Your task to perform on an android device: change the clock display to analog Image 0: 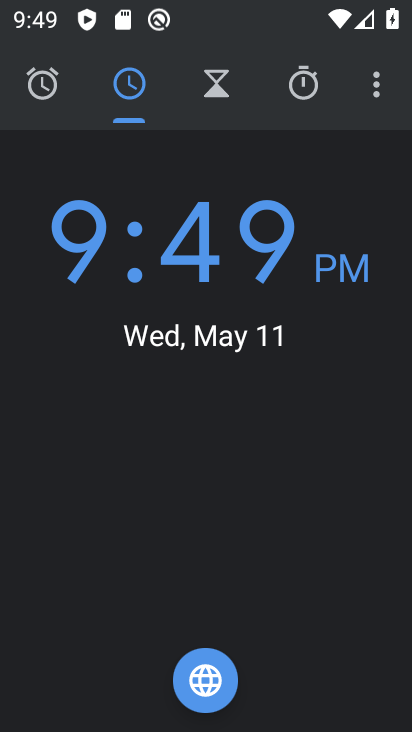
Step 0: click (390, 85)
Your task to perform on an android device: change the clock display to analog Image 1: 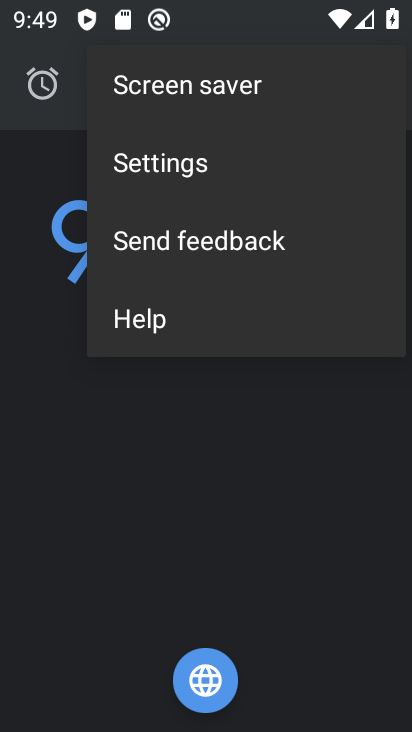
Step 1: click (170, 153)
Your task to perform on an android device: change the clock display to analog Image 2: 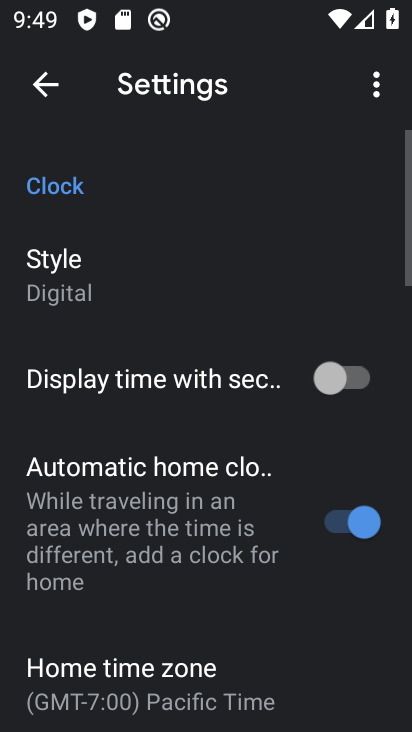
Step 2: click (133, 244)
Your task to perform on an android device: change the clock display to analog Image 3: 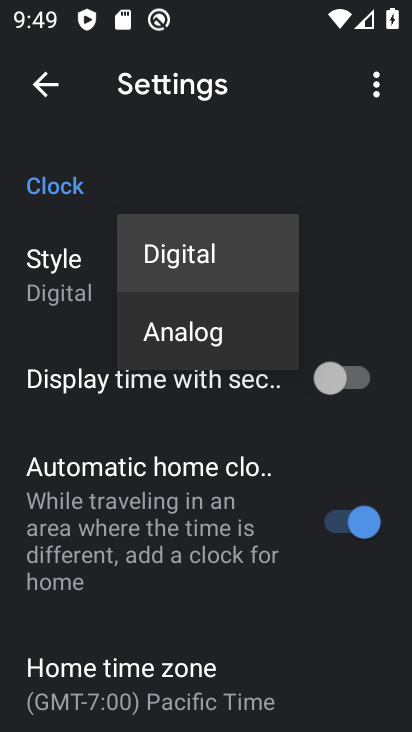
Step 3: click (197, 336)
Your task to perform on an android device: change the clock display to analog Image 4: 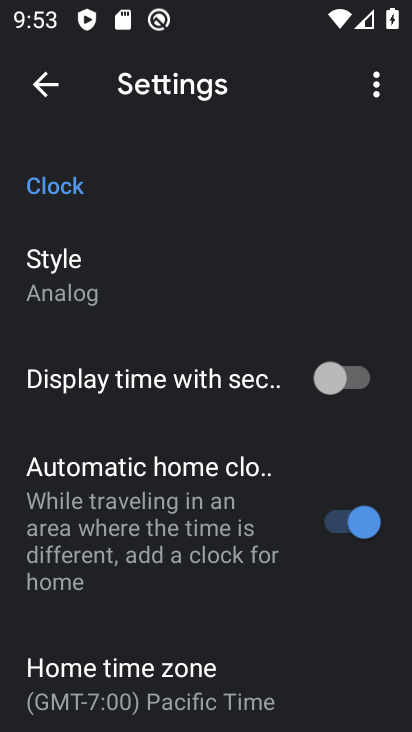
Step 4: task complete